Your task to perform on an android device: Turn on the flashlight Image 0: 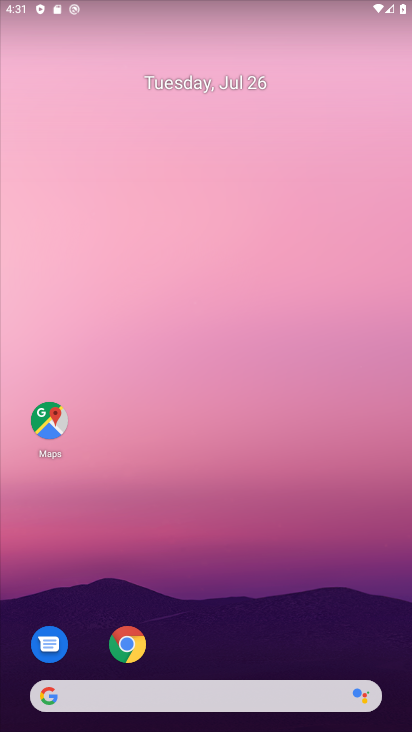
Step 0: task impossible